Your task to perform on an android device: Go to display settings Image 0: 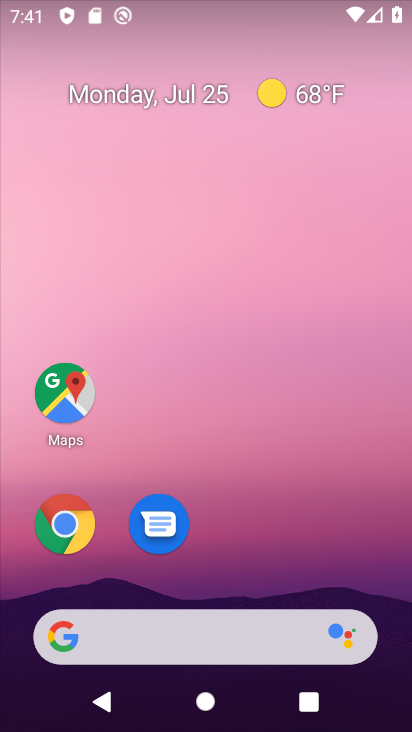
Step 0: drag from (246, 477) to (276, 48)
Your task to perform on an android device: Go to display settings Image 1: 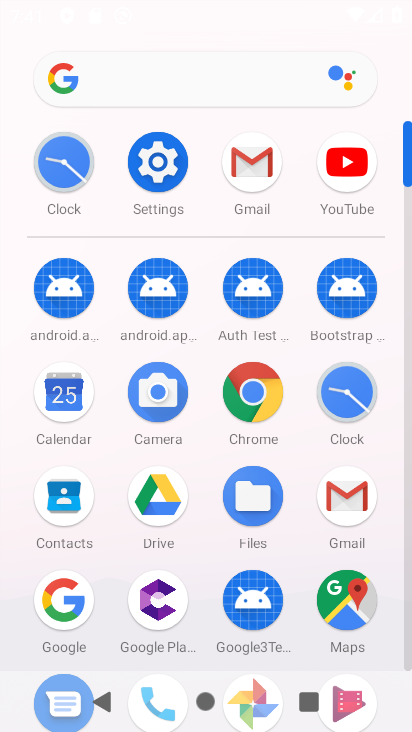
Step 1: click (165, 168)
Your task to perform on an android device: Go to display settings Image 2: 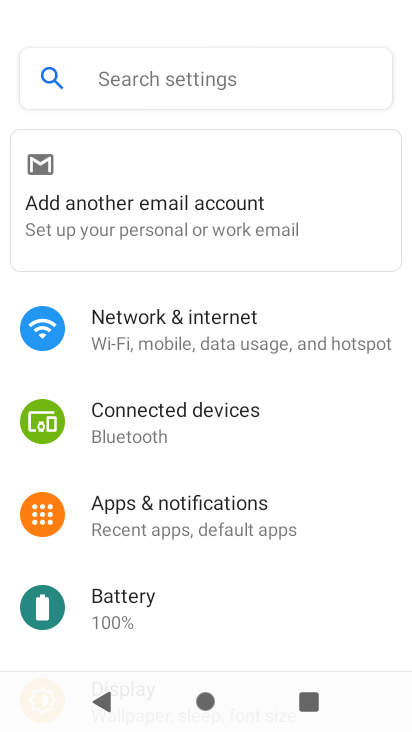
Step 2: drag from (204, 541) to (285, 245)
Your task to perform on an android device: Go to display settings Image 3: 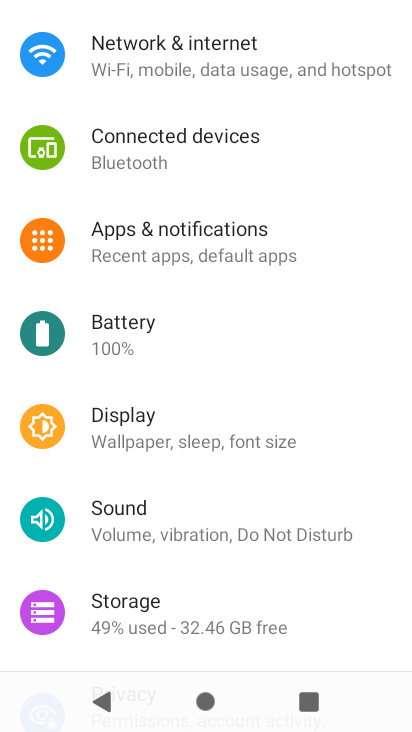
Step 3: click (147, 427)
Your task to perform on an android device: Go to display settings Image 4: 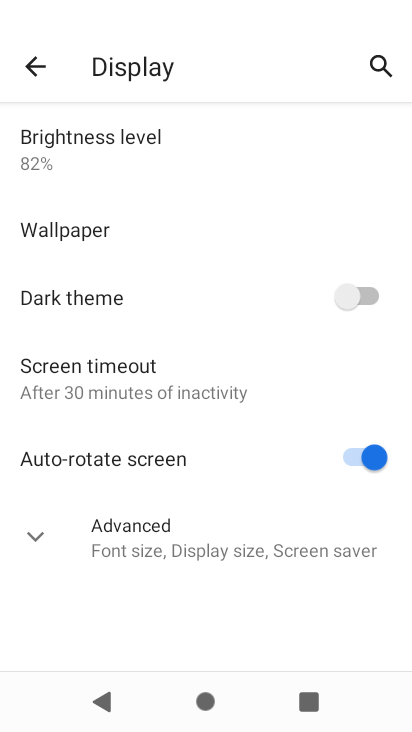
Step 4: task complete